Your task to perform on an android device: turn notification dots on Image 0: 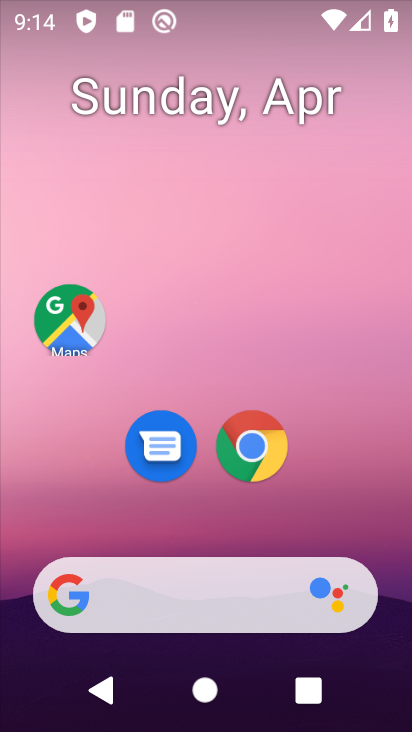
Step 0: click (374, 46)
Your task to perform on an android device: turn notification dots on Image 1: 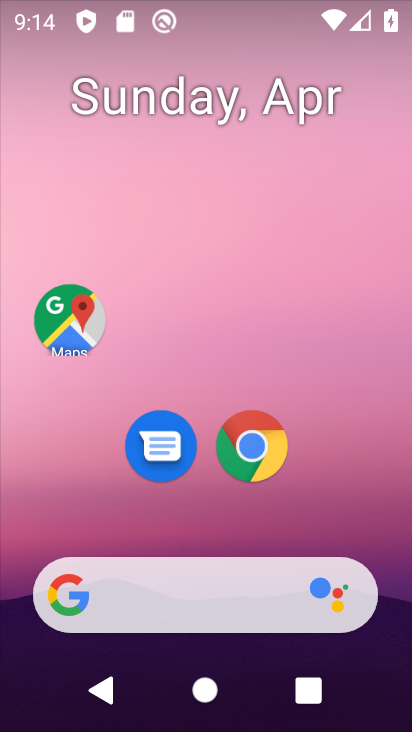
Step 1: drag from (219, 543) to (324, 5)
Your task to perform on an android device: turn notification dots on Image 2: 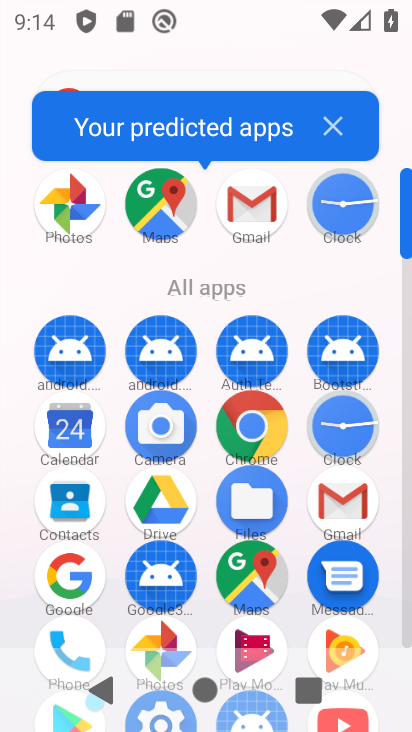
Step 2: drag from (214, 602) to (233, 281)
Your task to perform on an android device: turn notification dots on Image 3: 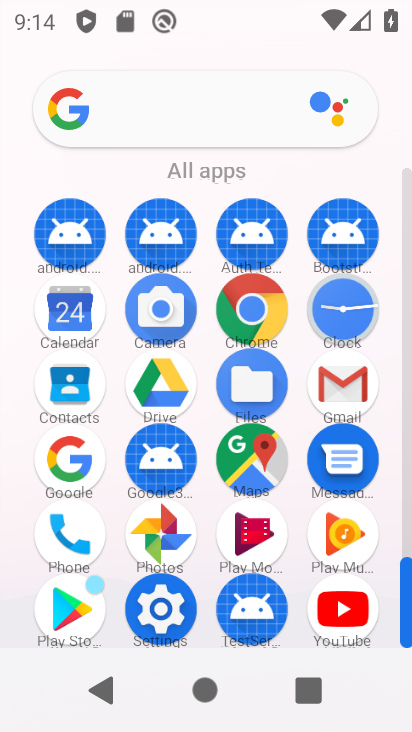
Step 3: click (153, 612)
Your task to perform on an android device: turn notification dots on Image 4: 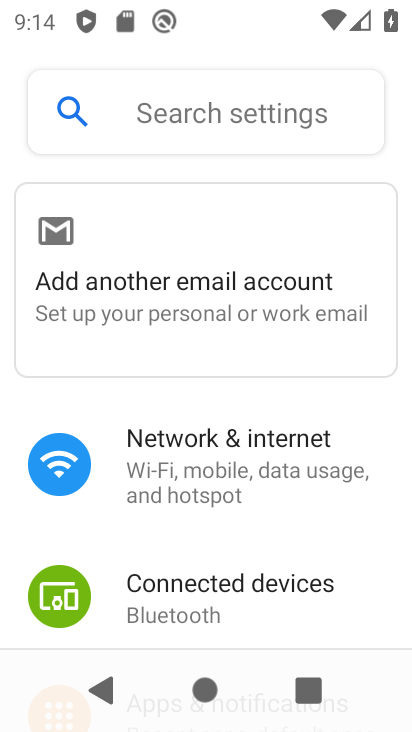
Step 4: drag from (201, 531) to (272, 39)
Your task to perform on an android device: turn notification dots on Image 5: 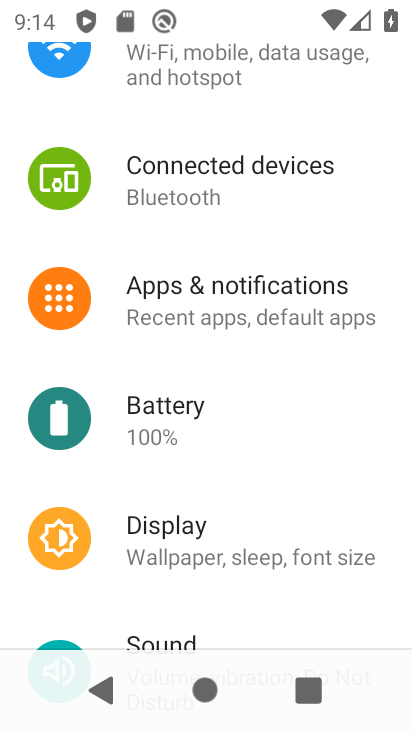
Step 5: click (249, 274)
Your task to perform on an android device: turn notification dots on Image 6: 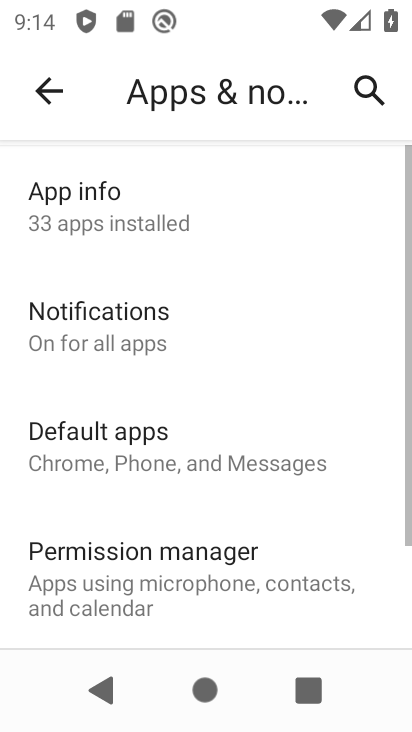
Step 6: click (136, 282)
Your task to perform on an android device: turn notification dots on Image 7: 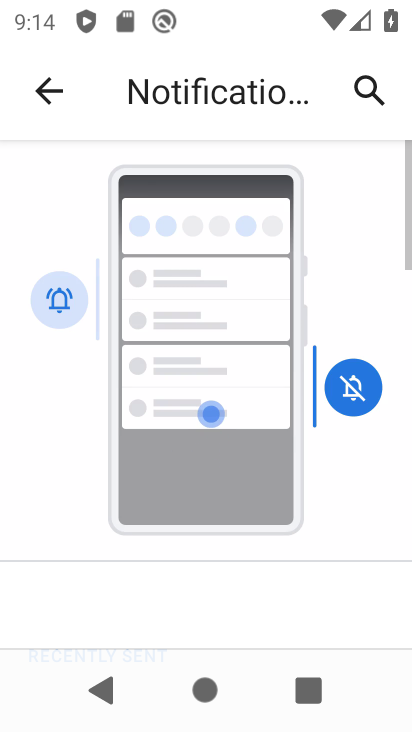
Step 7: drag from (219, 448) to (280, 5)
Your task to perform on an android device: turn notification dots on Image 8: 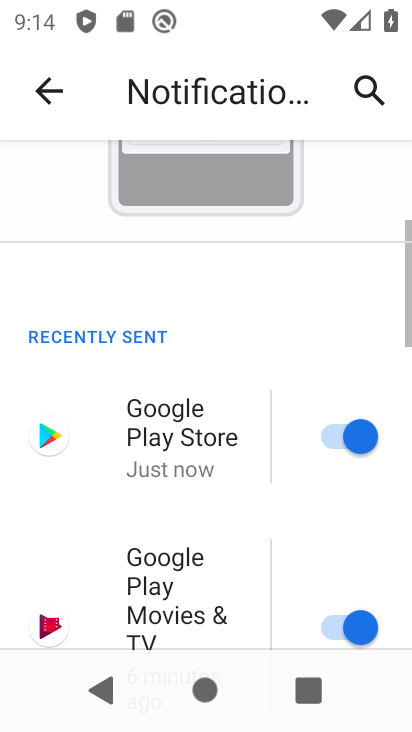
Step 8: drag from (196, 536) to (276, 93)
Your task to perform on an android device: turn notification dots on Image 9: 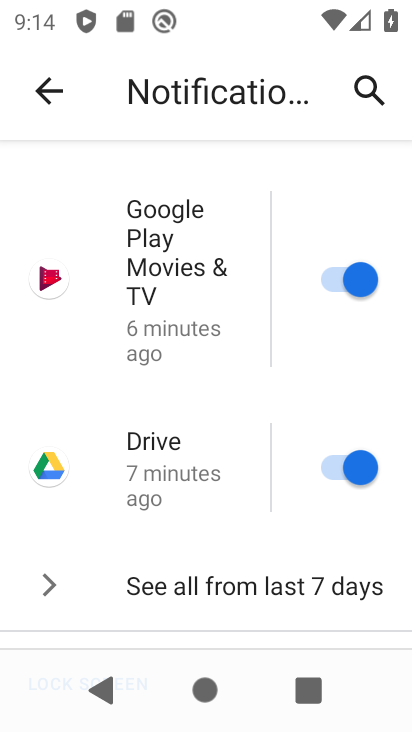
Step 9: drag from (205, 526) to (326, 113)
Your task to perform on an android device: turn notification dots on Image 10: 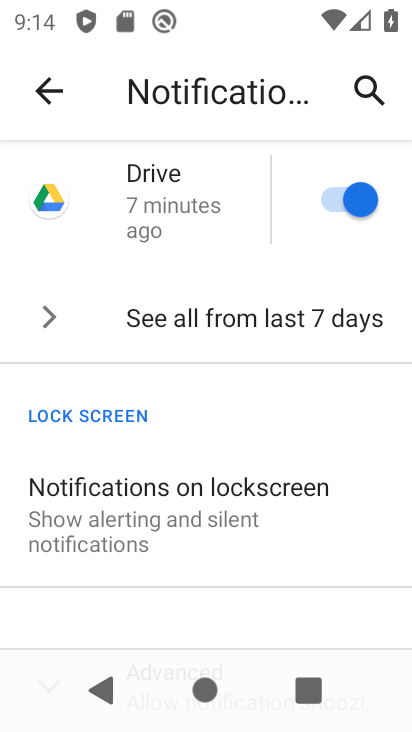
Step 10: drag from (179, 557) to (240, 147)
Your task to perform on an android device: turn notification dots on Image 11: 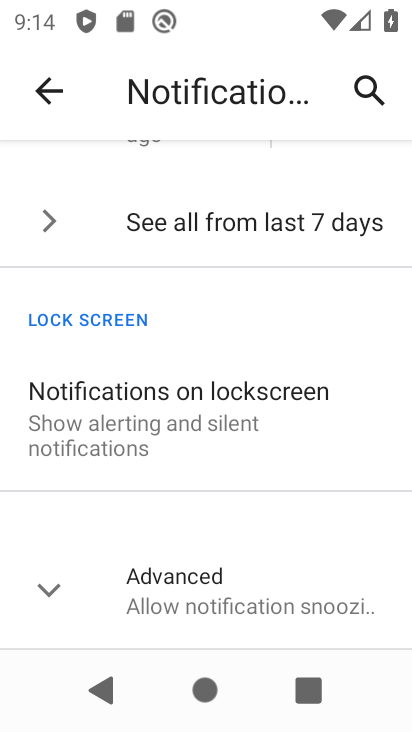
Step 11: click (184, 595)
Your task to perform on an android device: turn notification dots on Image 12: 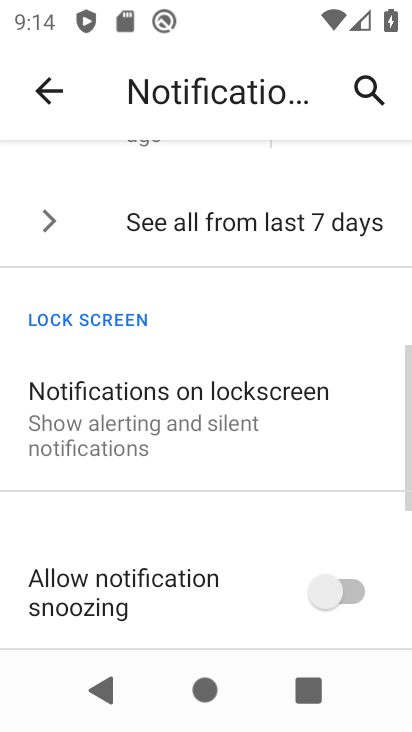
Step 12: task complete